Your task to perform on an android device: Go to battery settings Image 0: 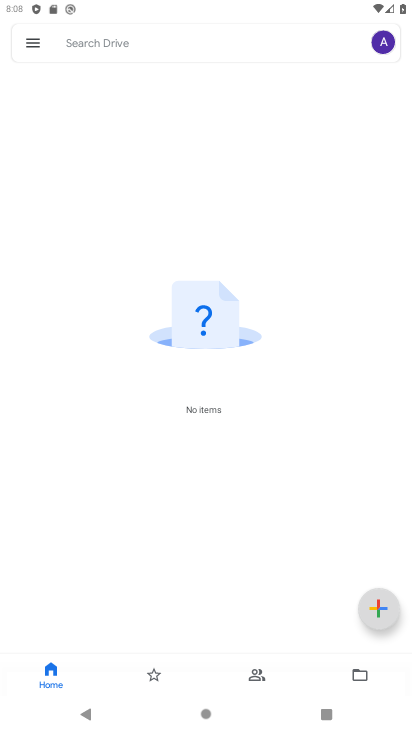
Step 0: press home button
Your task to perform on an android device: Go to battery settings Image 1: 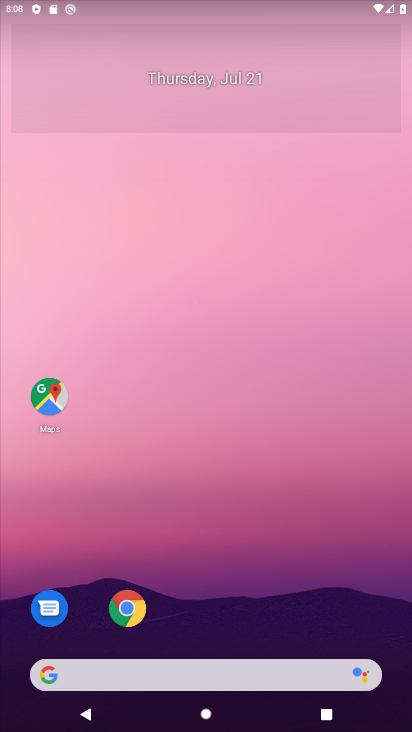
Step 1: drag from (15, 696) to (226, 152)
Your task to perform on an android device: Go to battery settings Image 2: 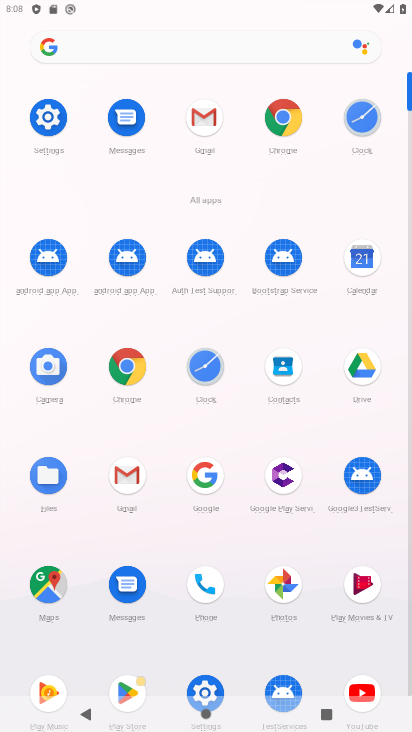
Step 2: click (206, 690)
Your task to perform on an android device: Go to battery settings Image 3: 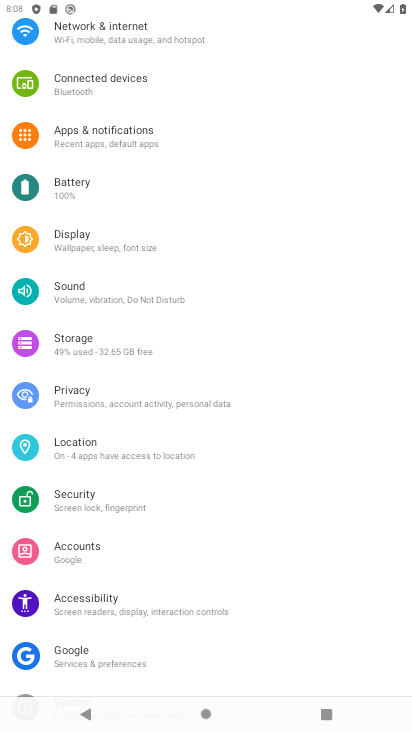
Step 3: click (82, 175)
Your task to perform on an android device: Go to battery settings Image 4: 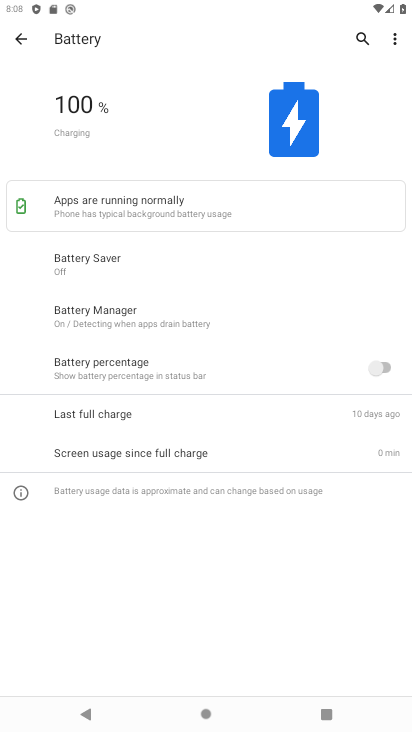
Step 4: task complete